Your task to perform on an android device: Open accessibility settings Image 0: 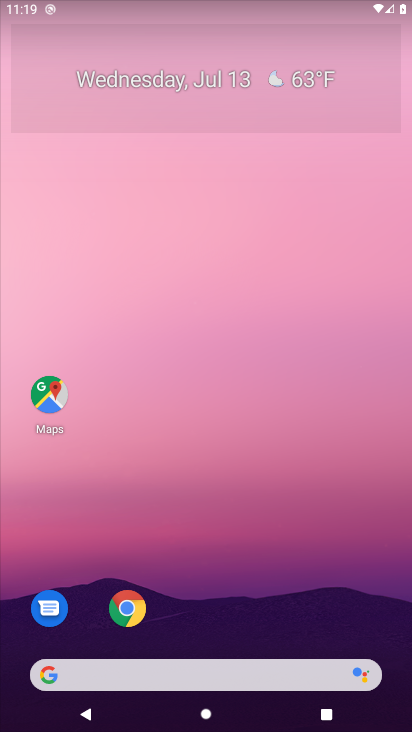
Step 0: press home button
Your task to perform on an android device: Open accessibility settings Image 1: 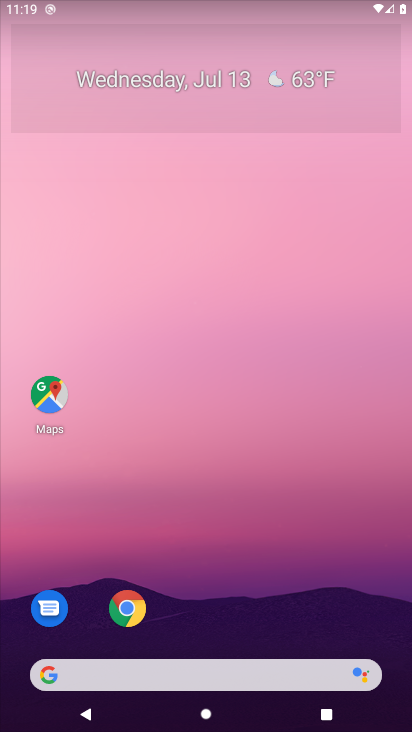
Step 1: drag from (288, 560) to (277, 93)
Your task to perform on an android device: Open accessibility settings Image 2: 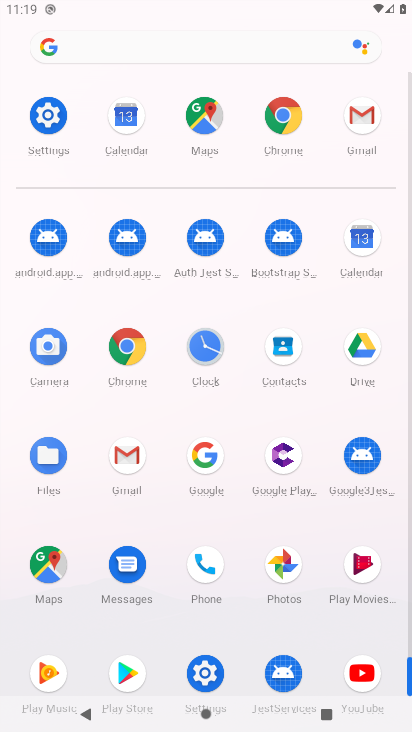
Step 2: click (42, 122)
Your task to perform on an android device: Open accessibility settings Image 3: 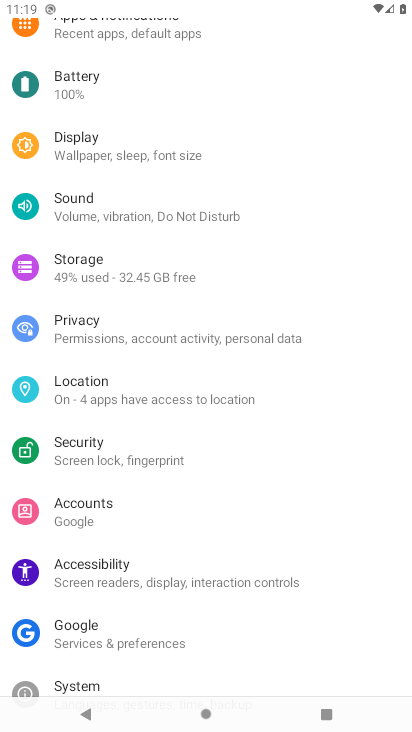
Step 3: click (120, 559)
Your task to perform on an android device: Open accessibility settings Image 4: 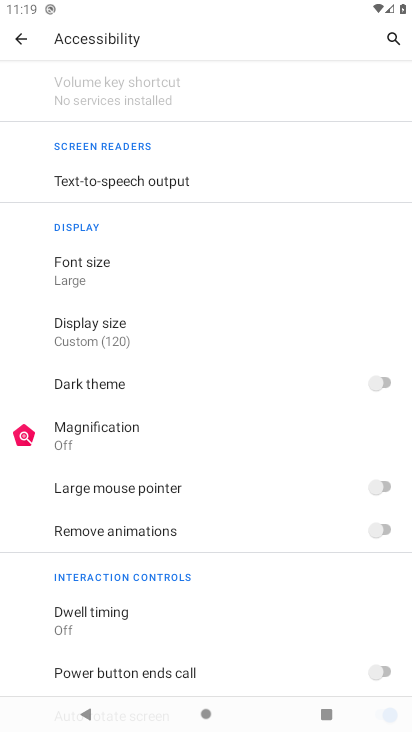
Step 4: task complete